Your task to perform on an android device: turn off javascript in the chrome app Image 0: 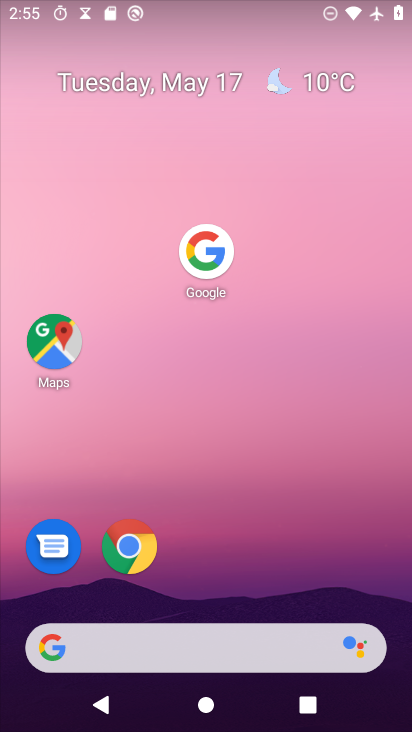
Step 0: press home button
Your task to perform on an android device: turn off javascript in the chrome app Image 1: 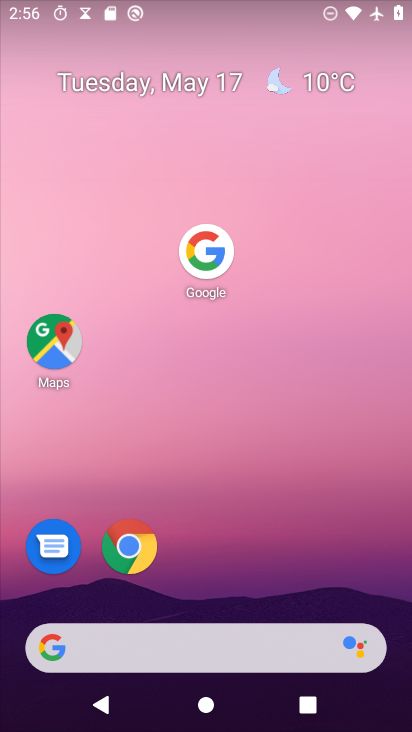
Step 1: click (130, 539)
Your task to perform on an android device: turn off javascript in the chrome app Image 2: 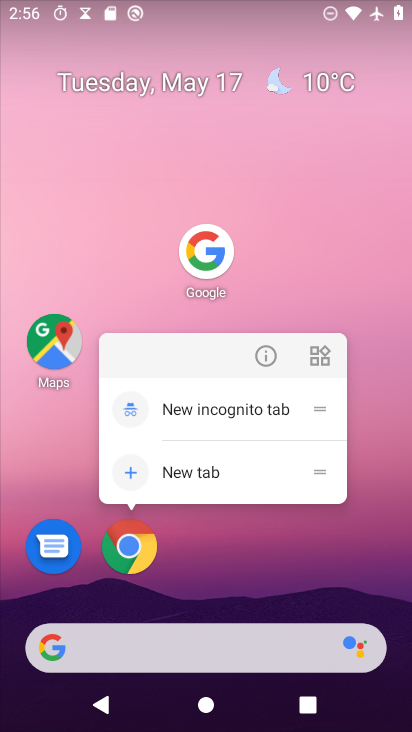
Step 2: click (136, 548)
Your task to perform on an android device: turn off javascript in the chrome app Image 3: 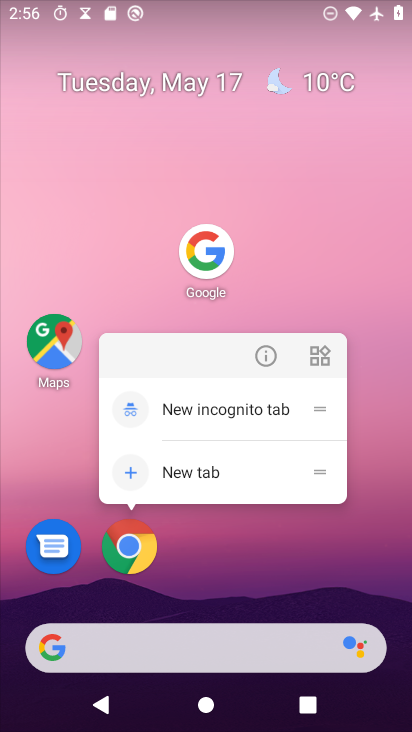
Step 3: click (136, 550)
Your task to perform on an android device: turn off javascript in the chrome app Image 4: 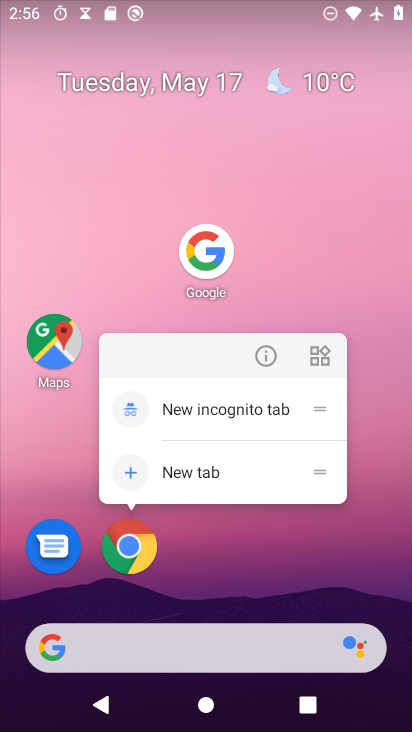
Step 4: click (128, 564)
Your task to perform on an android device: turn off javascript in the chrome app Image 5: 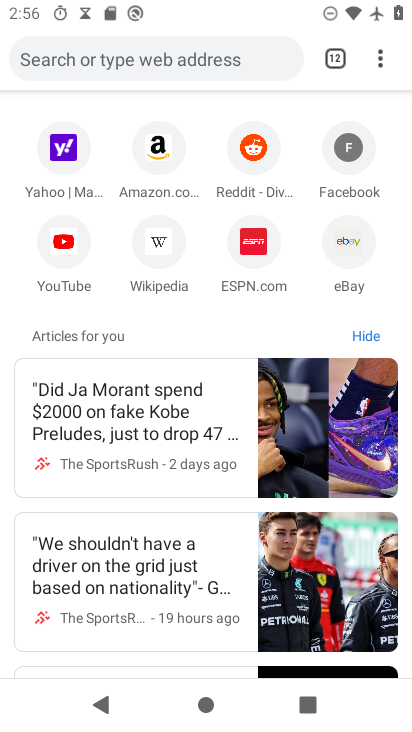
Step 5: drag from (382, 57) to (255, 485)
Your task to perform on an android device: turn off javascript in the chrome app Image 6: 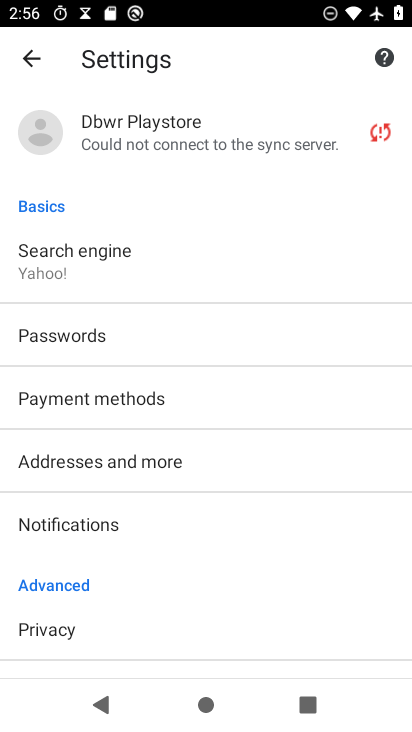
Step 6: drag from (194, 611) to (329, 227)
Your task to perform on an android device: turn off javascript in the chrome app Image 7: 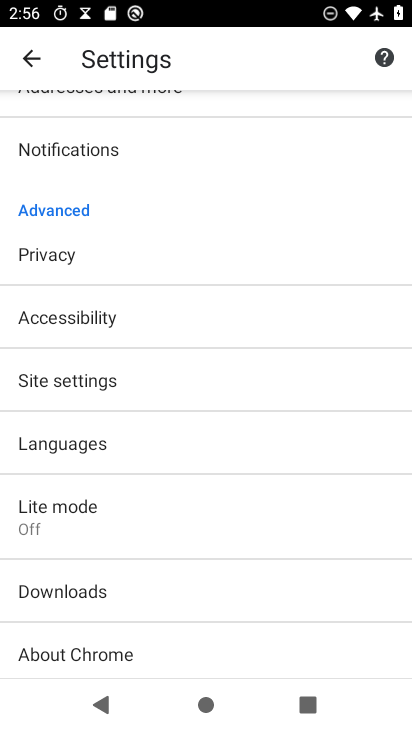
Step 7: drag from (176, 534) to (275, 160)
Your task to perform on an android device: turn off javascript in the chrome app Image 8: 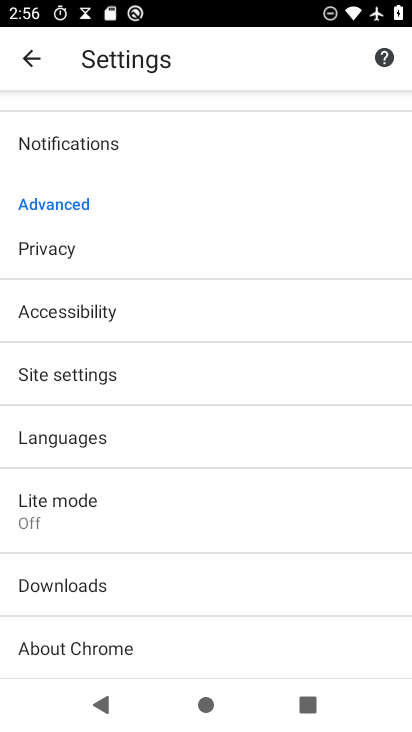
Step 8: click (110, 382)
Your task to perform on an android device: turn off javascript in the chrome app Image 9: 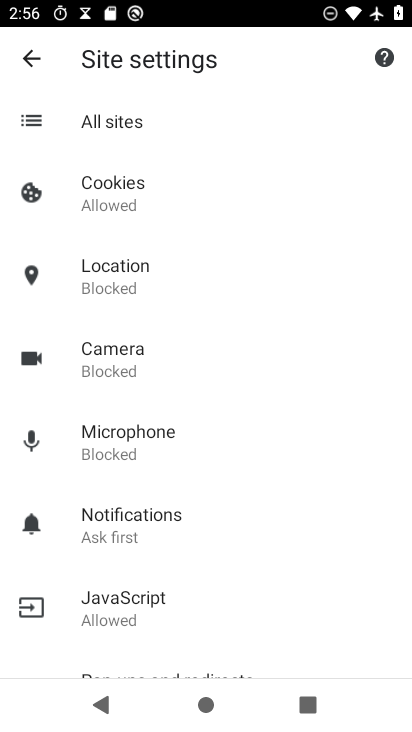
Step 9: click (154, 599)
Your task to perform on an android device: turn off javascript in the chrome app Image 10: 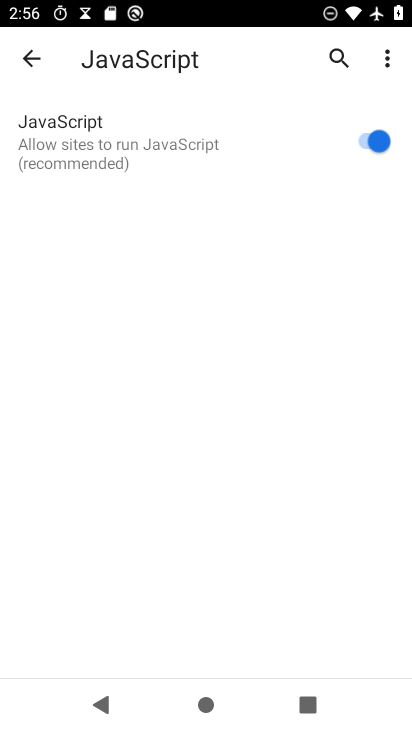
Step 10: click (370, 142)
Your task to perform on an android device: turn off javascript in the chrome app Image 11: 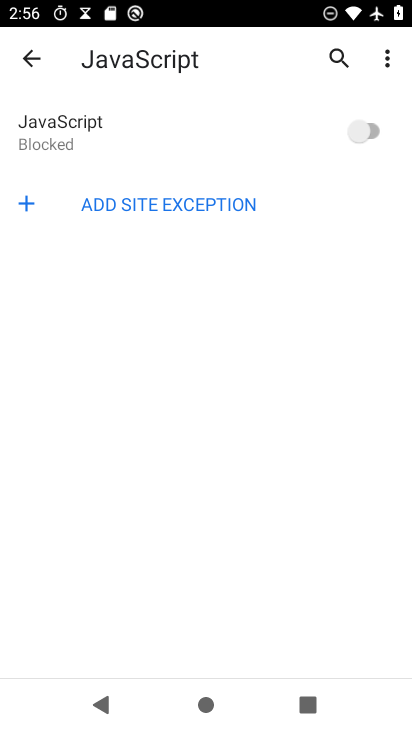
Step 11: task complete